Your task to perform on an android device: turn pop-ups on in chrome Image 0: 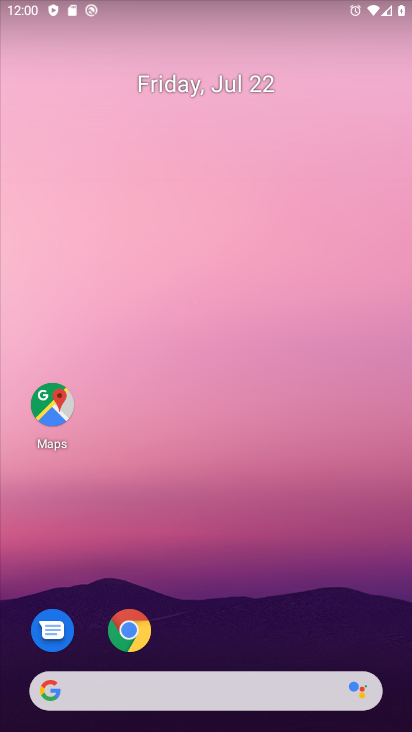
Step 0: click (131, 628)
Your task to perform on an android device: turn pop-ups on in chrome Image 1: 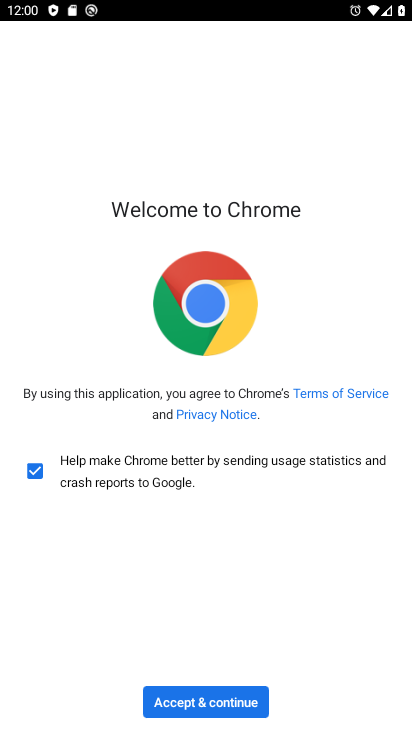
Step 1: click (218, 704)
Your task to perform on an android device: turn pop-ups on in chrome Image 2: 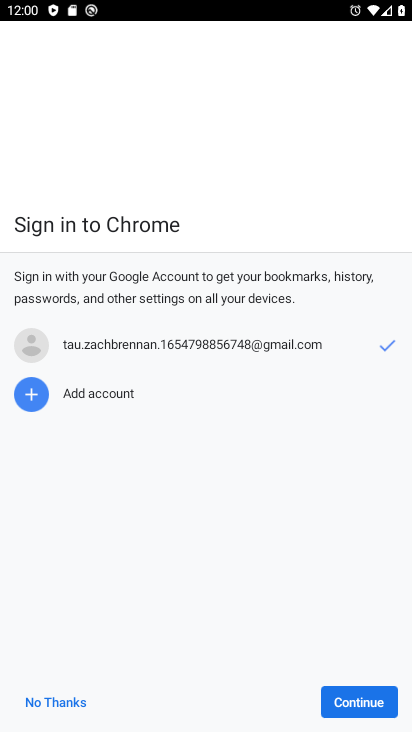
Step 2: click (346, 702)
Your task to perform on an android device: turn pop-ups on in chrome Image 3: 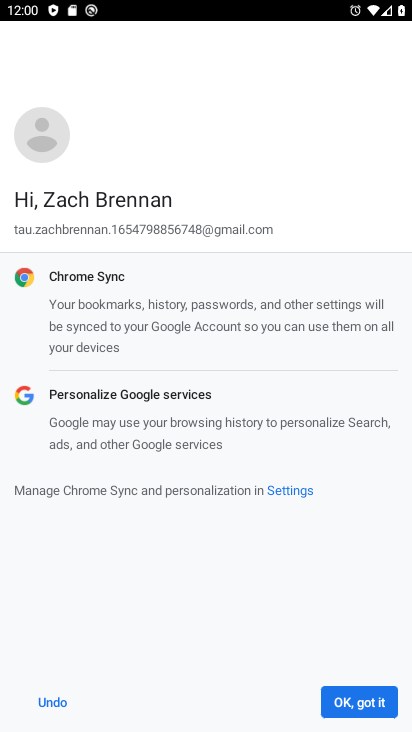
Step 3: click (346, 702)
Your task to perform on an android device: turn pop-ups on in chrome Image 4: 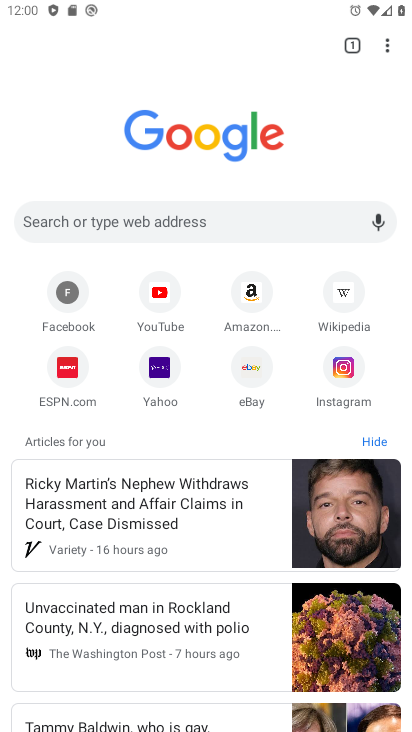
Step 4: click (386, 49)
Your task to perform on an android device: turn pop-ups on in chrome Image 5: 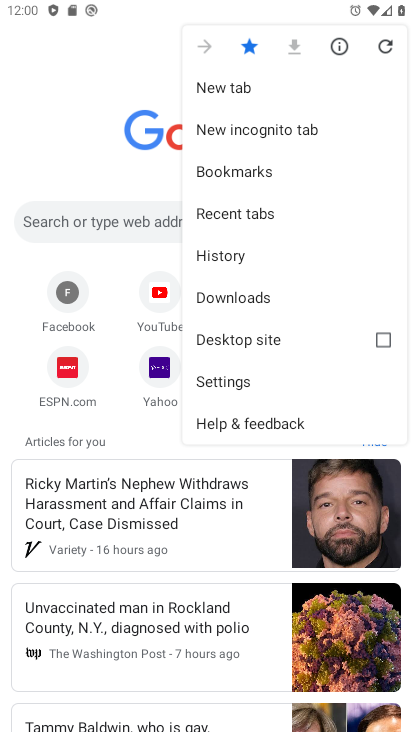
Step 5: click (232, 381)
Your task to perform on an android device: turn pop-ups on in chrome Image 6: 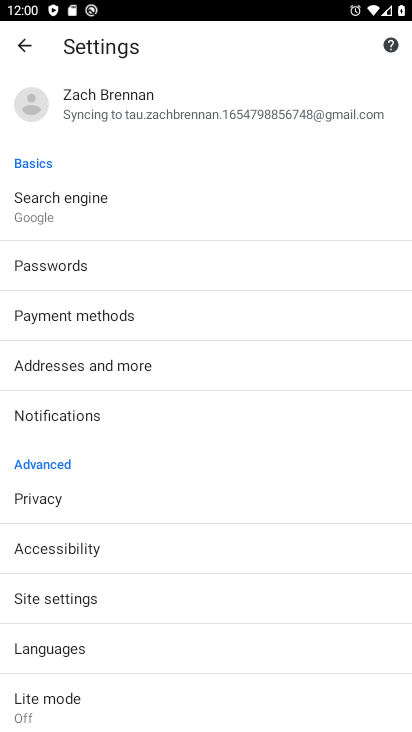
Step 6: drag from (129, 490) to (130, 280)
Your task to perform on an android device: turn pop-ups on in chrome Image 7: 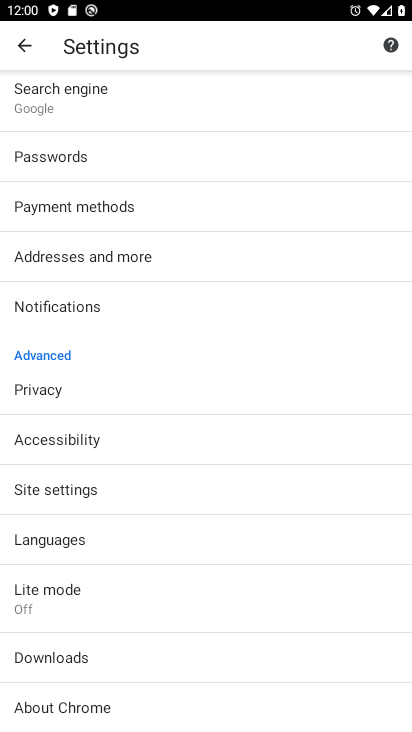
Step 7: click (51, 492)
Your task to perform on an android device: turn pop-ups on in chrome Image 8: 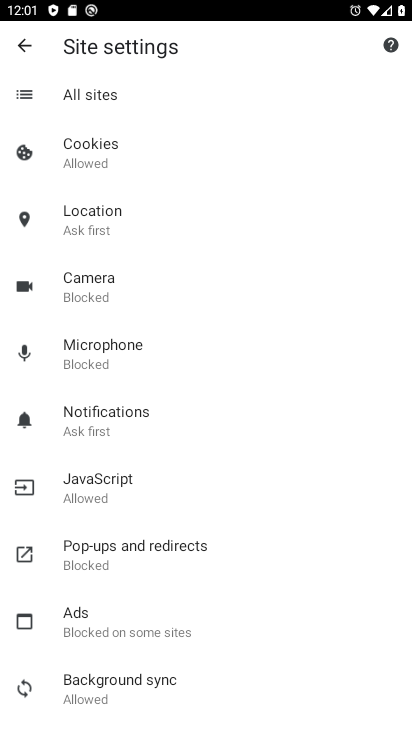
Step 8: click (178, 556)
Your task to perform on an android device: turn pop-ups on in chrome Image 9: 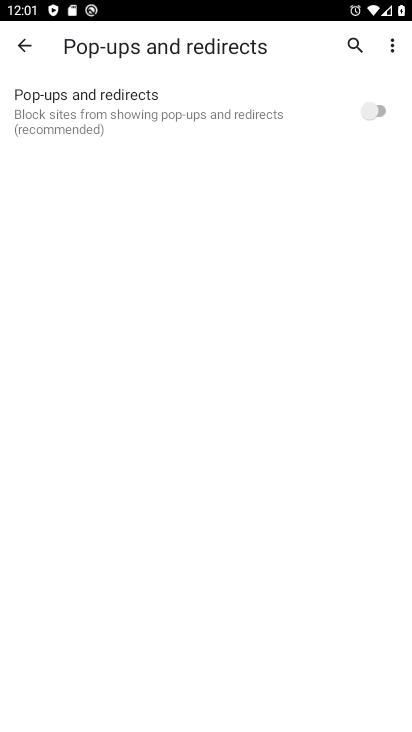
Step 9: click (375, 111)
Your task to perform on an android device: turn pop-ups on in chrome Image 10: 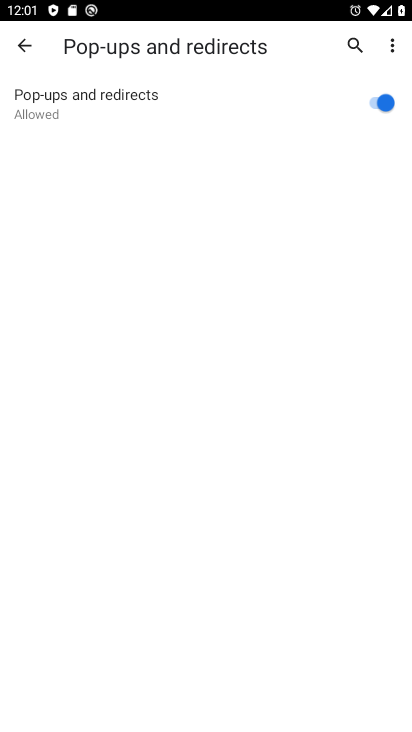
Step 10: task complete